Your task to perform on an android device: Search for sushi restaurants on Maps Image 0: 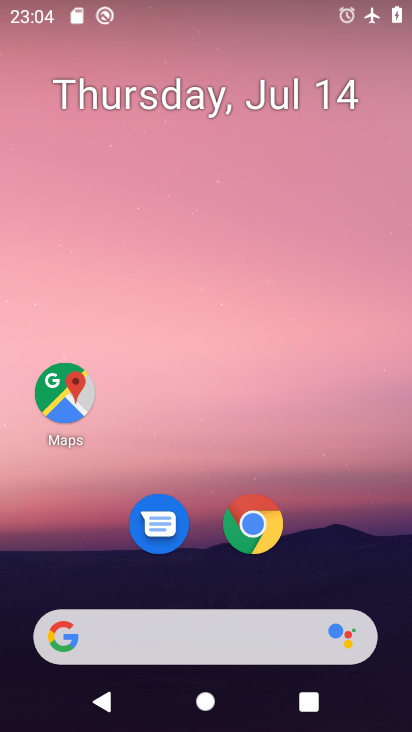
Step 0: click (74, 399)
Your task to perform on an android device: Search for sushi restaurants on Maps Image 1: 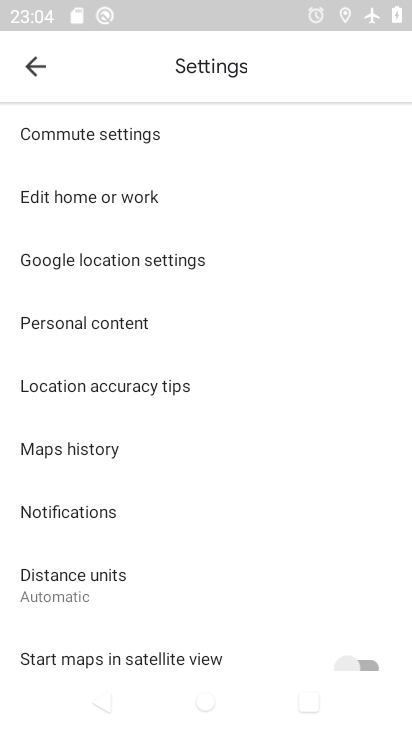
Step 1: click (37, 67)
Your task to perform on an android device: Search for sushi restaurants on Maps Image 2: 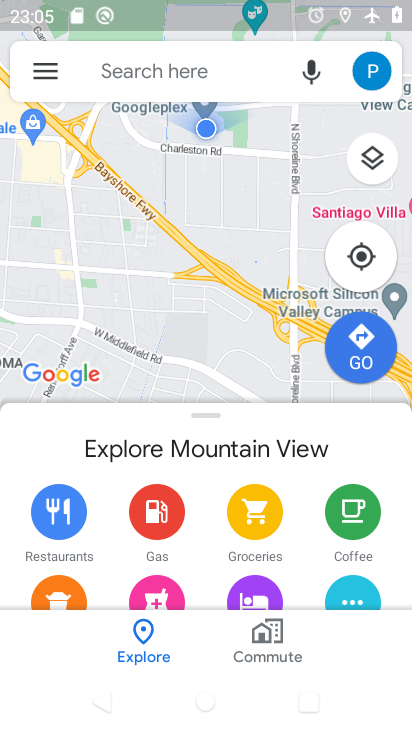
Step 2: click (112, 70)
Your task to perform on an android device: Search for sushi restaurants on Maps Image 3: 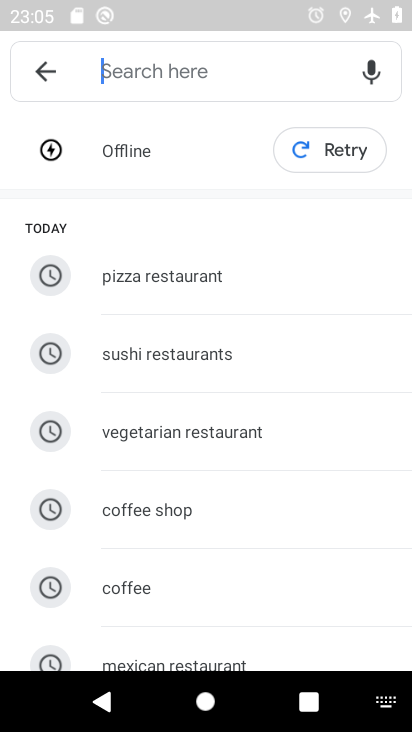
Step 3: click (173, 362)
Your task to perform on an android device: Search for sushi restaurants on Maps Image 4: 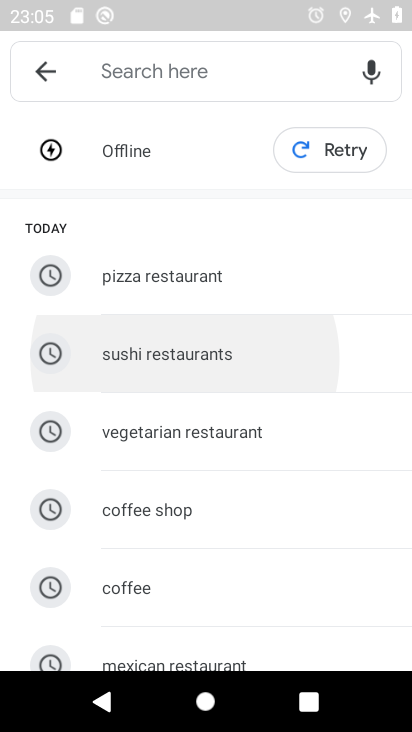
Step 4: click (173, 362)
Your task to perform on an android device: Search for sushi restaurants on Maps Image 5: 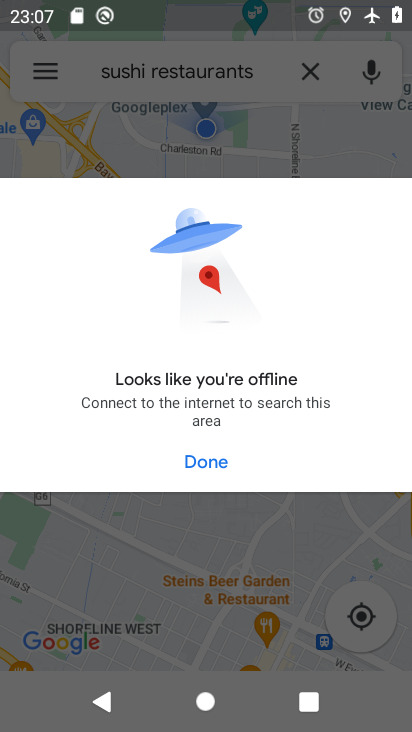
Step 5: task complete